Your task to perform on an android device: Set the phone to "Do not disturb". Image 0: 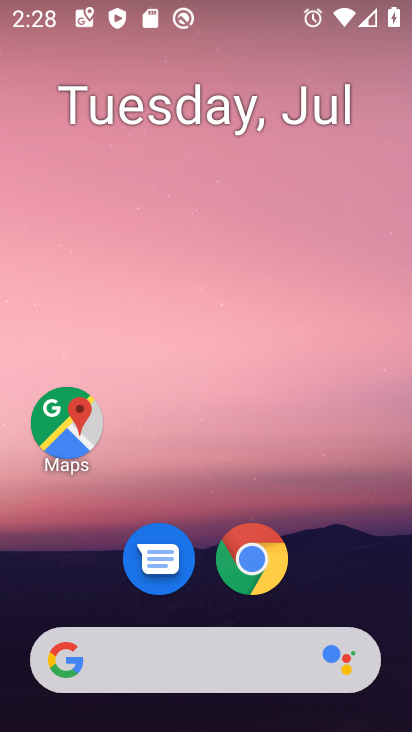
Step 0: drag from (377, 595) to (382, 177)
Your task to perform on an android device: Set the phone to "Do not disturb". Image 1: 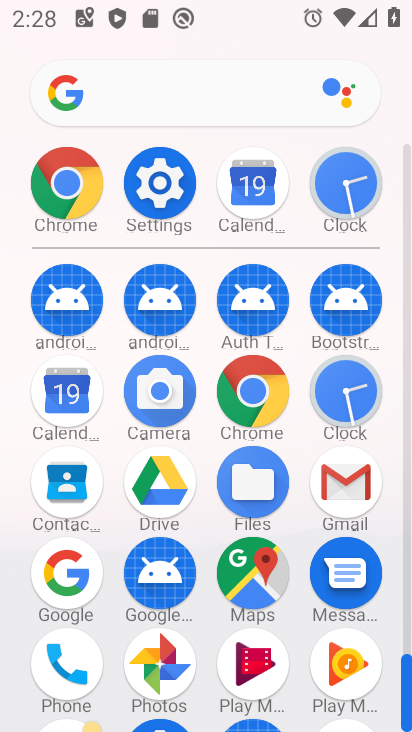
Step 1: click (174, 195)
Your task to perform on an android device: Set the phone to "Do not disturb". Image 2: 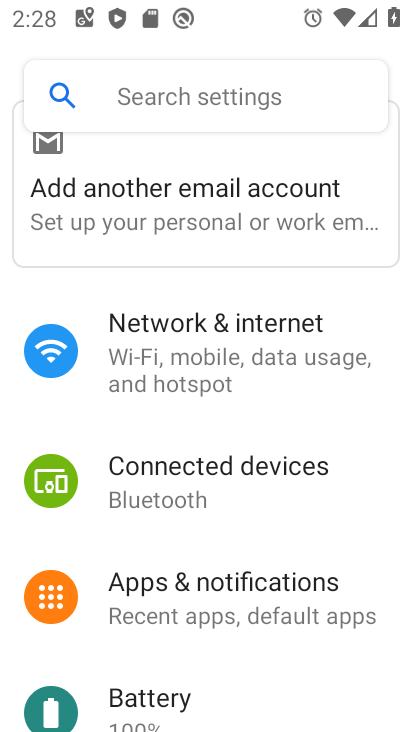
Step 2: drag from (354, 530) to (366, 449)
Your task to perform on an android device: Set the phone to "Do not disturb". Image 3: 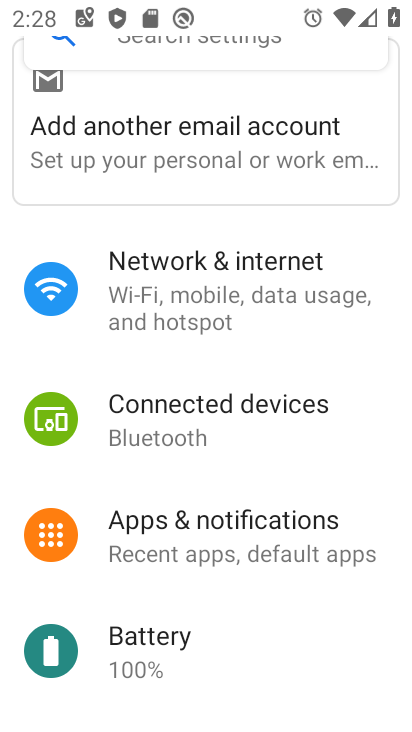
Step 3: drag from (352, 622) to (335, 532)
Your task to perform on an android device: Set the phone to "Do not disturb". Image 4: 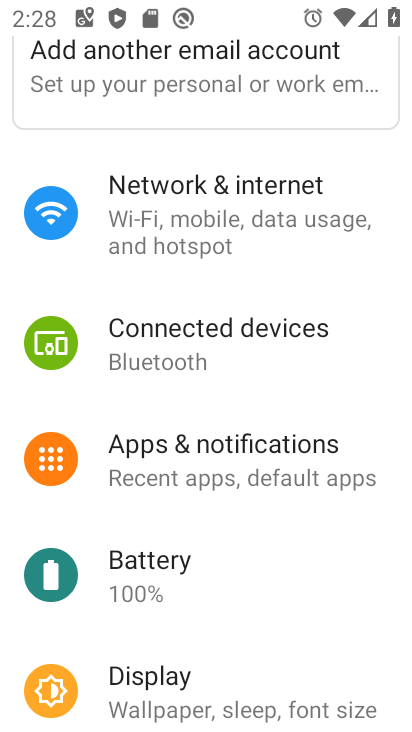
Step 4: drag from (339, 598) to (344, 481)
Your task to perform on an android device: Set the phone to "Do not disturb". Image 5: 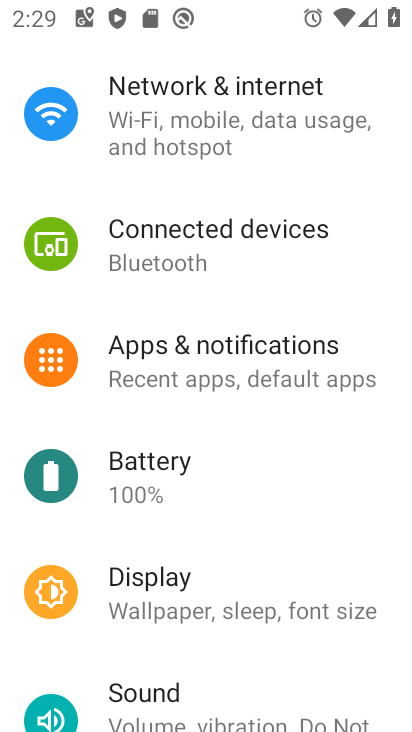
Step 5: drag from (328, 652) to (343, 477)
Your task to perform on an android device: Set the phone to "Do not disturb". Image 6: 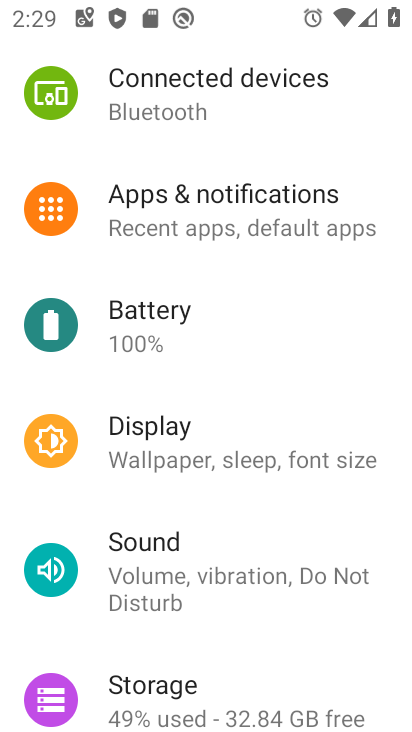
Step 6: click (310, 558)
Your task to perform on an android device: Set the phone to "Do not disturb". Image 7: 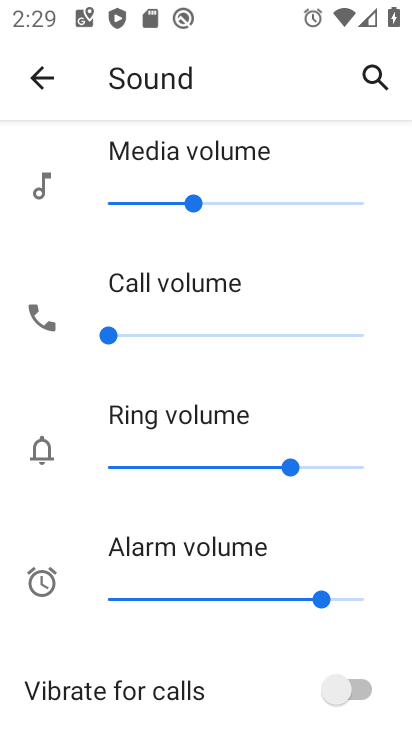
Step 7: drag from (241, 647) to (253, 506)
Your task to perform on an android device: Set the phone to "Do not disturb". Image 8: 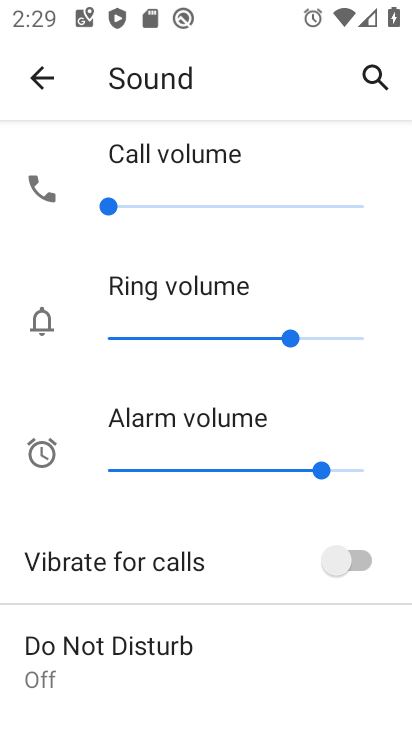
Step 8: drag from (235, 659) to (237, 597)
Your task to perform on an android device: Set the phone to "Do not disturb". Image 9: 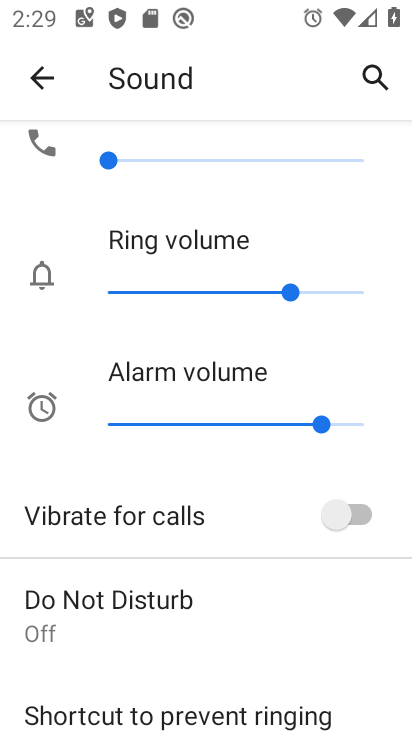
Step 9: click (180, 619)
Your task to perform on an android device: Set the phone to "Do not disturb". Image 10: 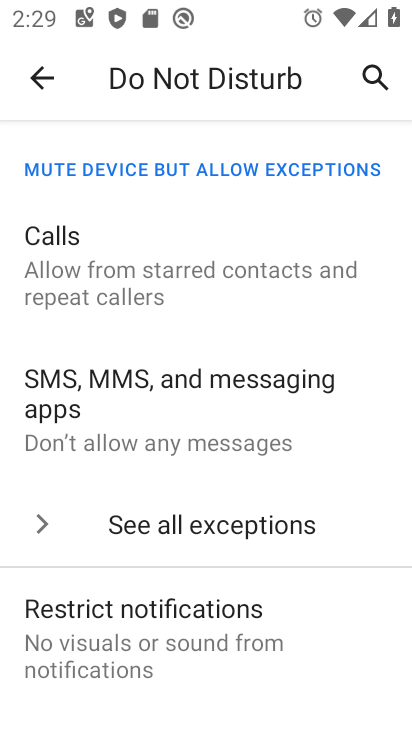
Step 10: drag from (316, 636) to (329, 549)
Your task to perform on an android device: Set the phone to "Do not disturb". Image 11: 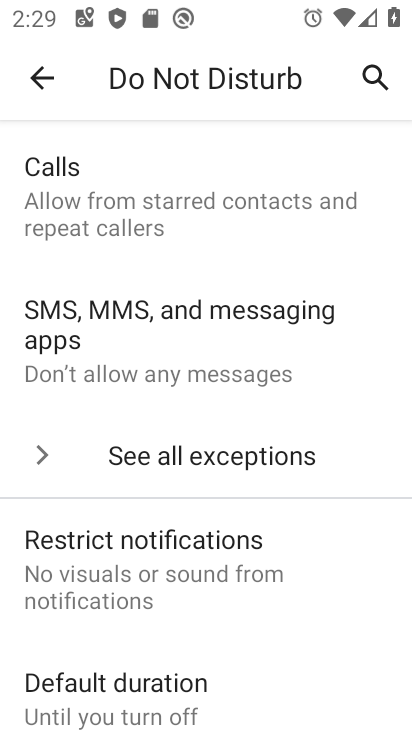
Step 11: drag from (319, 594) to (326, 499)
Your task to perform on an android device: Set the phone to "Do not disturb". Image 12: 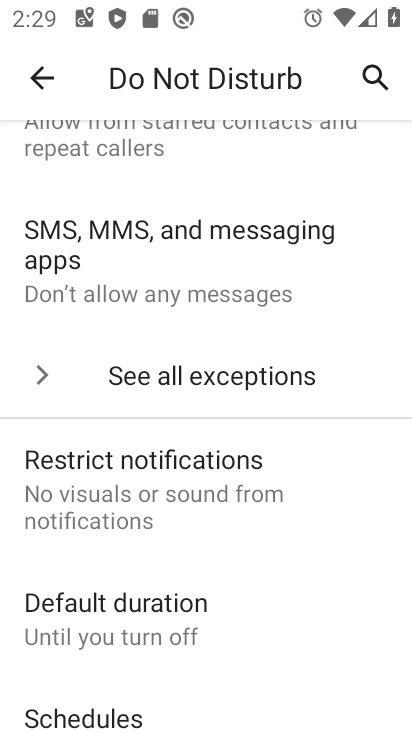
Step 12: drag from (312, 623) to (318, 514)
Your task to perform on an android device: Set the phone to "Do not disturb". Image 13: 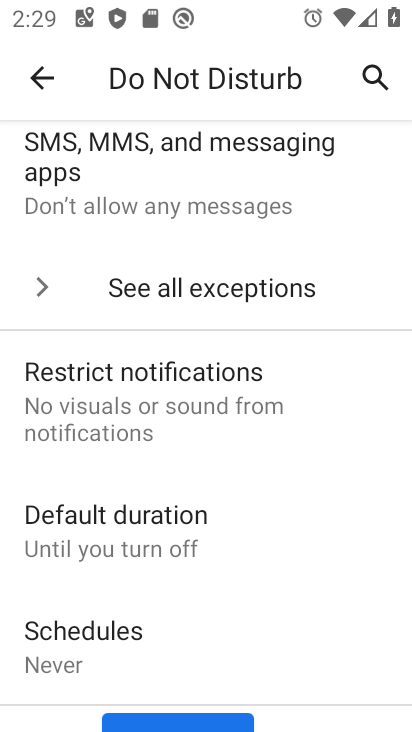
Step 13: drag from (309, 622) to (322, 536)
Your task to perform on an android device: Set the phone to "Do not disturb". Image 14: 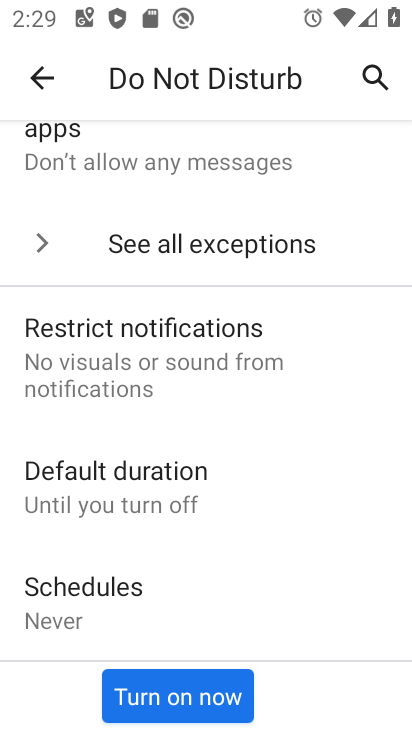
Step 14: click (228, 694)
Your task to perform on an android device: Set the phone to "Do not disturb". Image 15: 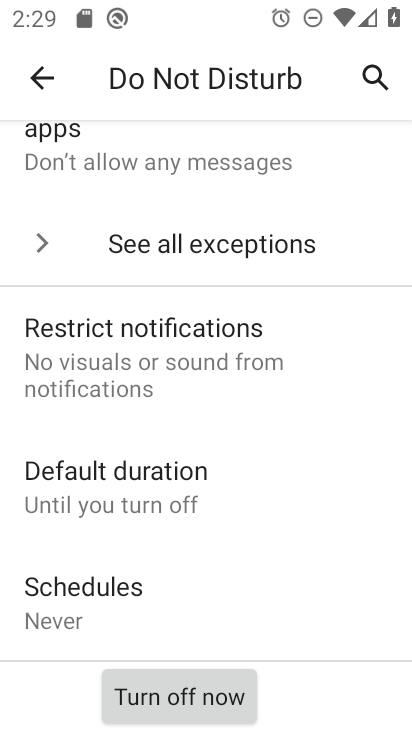
Step 15: task complete